Your task to perform on an android device: all mails in gmail Image 0: 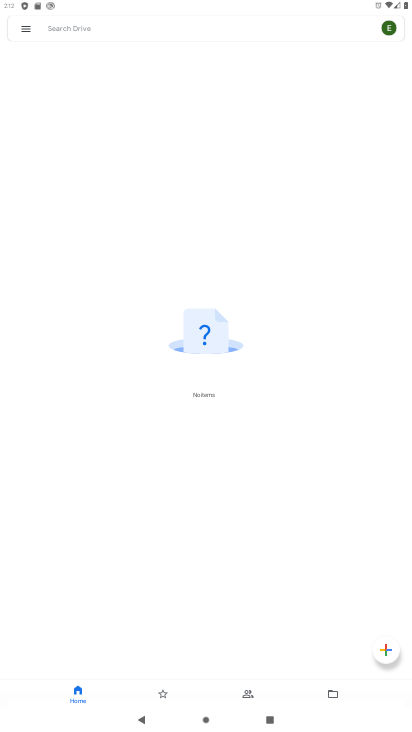
Step 0: press home button
Your task to perform on an android device: all mails in gmail Image 1: 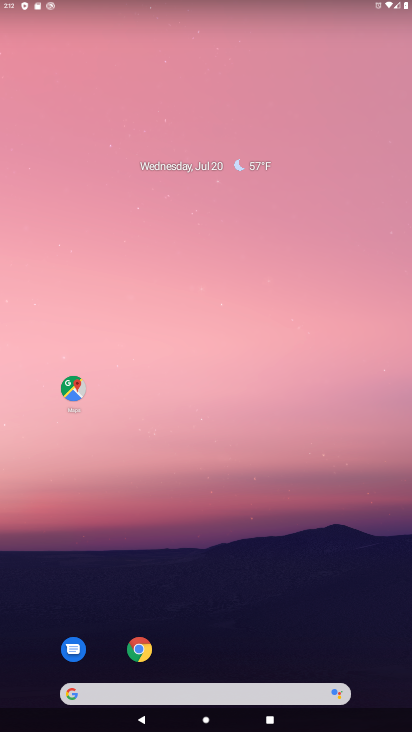
Step 1: drag from (162, 659) to (213, 88)
Your task to perform on an android device: all mails in gmail Image 2: 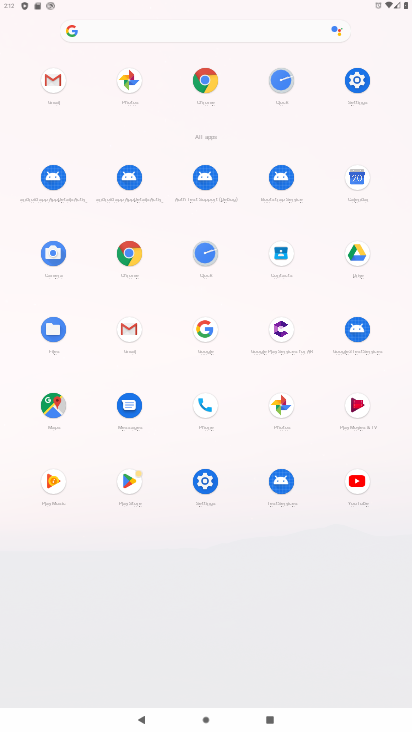
Step 2: click (57, 78)
Your task to perform on an android device: all mails in gmail Image 3: 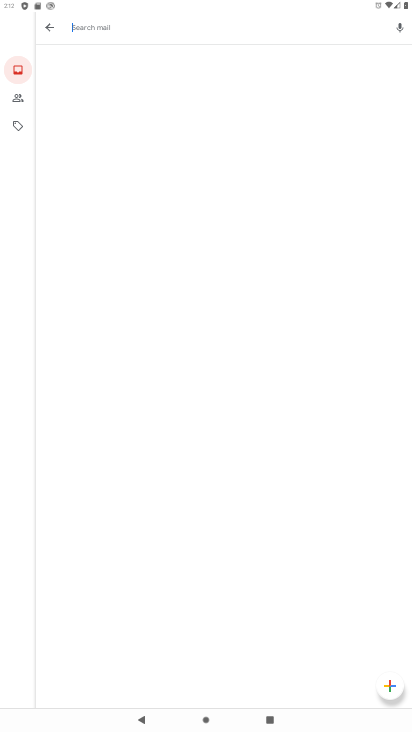
Step 3: click (48, 31)
Your task to perform on an android device: all mails in gmail Image 4: 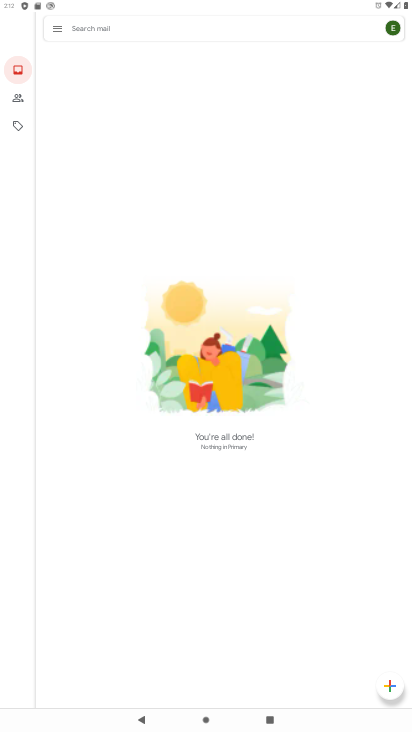
Step 4: click (48, 31)
Your task to perform on an android device: all mails in gmail Image 5: 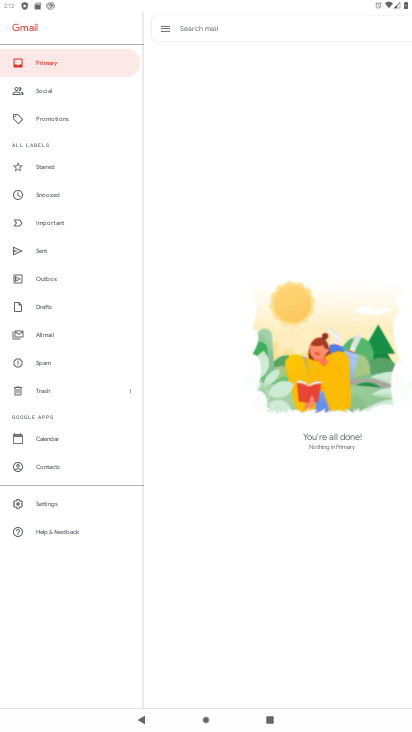
Step 5: click (58, 341)
Your task to perform on an android device: all mails in gmail Image 6: 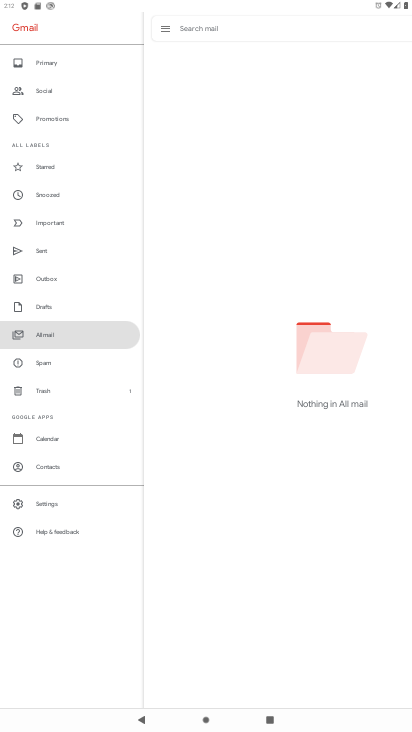
Step 6: task complete